Your task to perform on an android device: Open Yahoo.com Image 0: 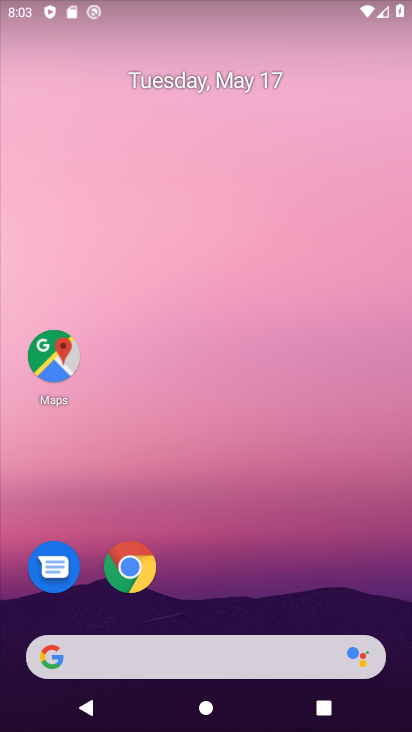
Step 0: drag from (360, 607) to (280, 63)
Your task to perform on an android device: Open Yahoo.com Image 1: 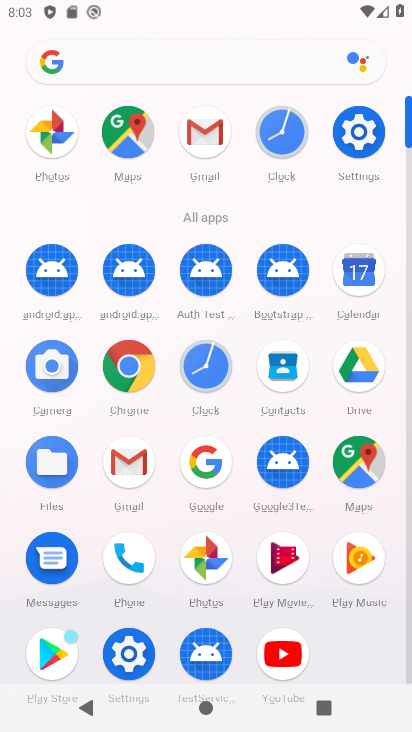
Step 1: click (217, 477)
Your task to perform on an android device: Open Yahoo.com Image 2: 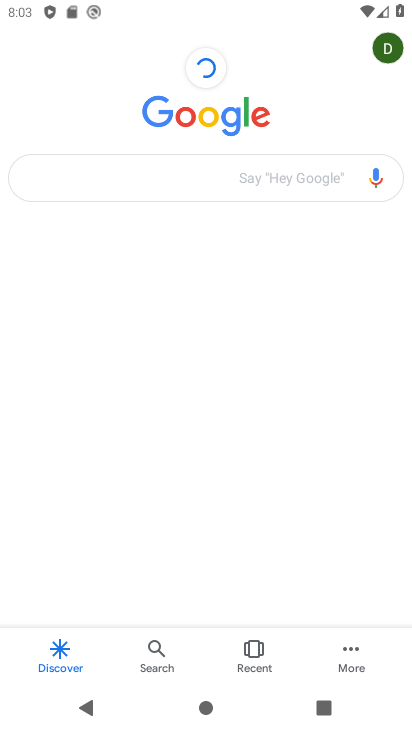
Step 2: click (177, 184)
Your task to perform on an android device: Open Yahoo.com Image 3: 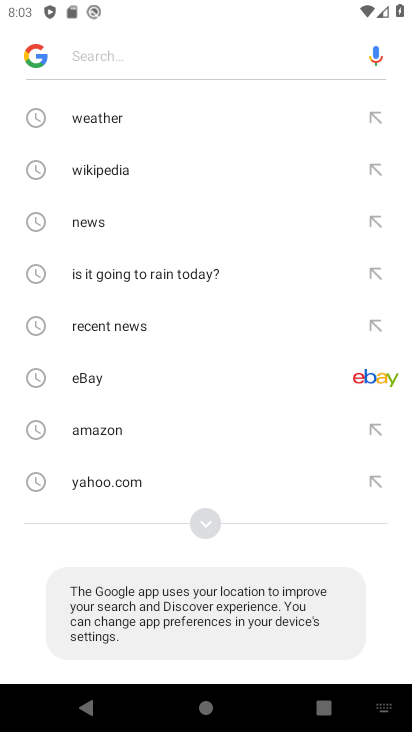
Step 3: click (100, 482)
Your task to perform on an android device: Open Yahoo.com Image 4: 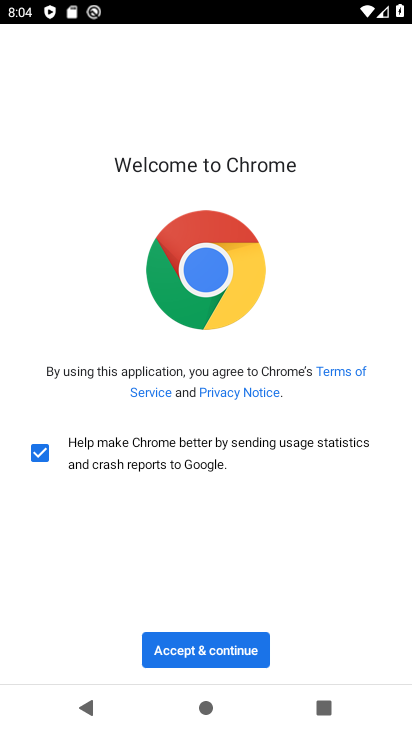
Step 4: click (227, 644)
Your task to perform on an android device: Open Yahoo.com Image 5: 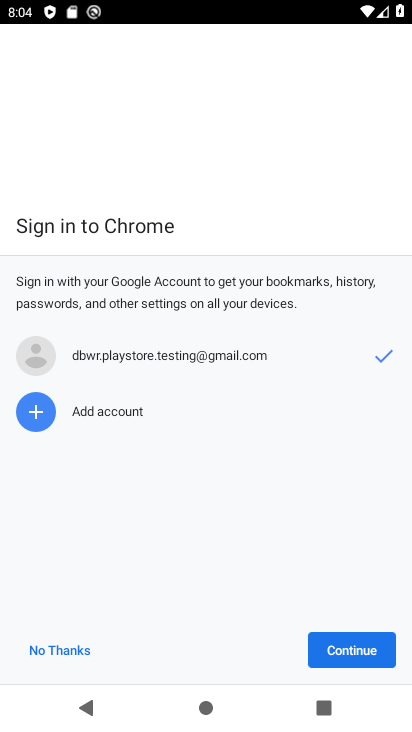
Step 5: click (336, 646)
Your task to perform on an android device: Open Yahoo.com Image 6: 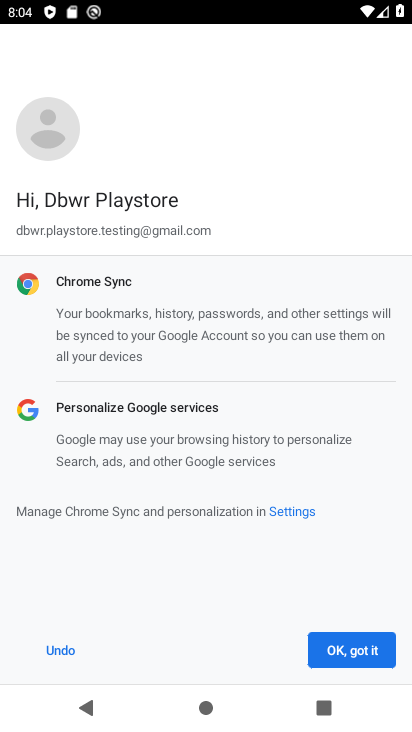
Step 6: click (336, 646)
Your task to perform on an android device: Open Yahoo.com Image 7: 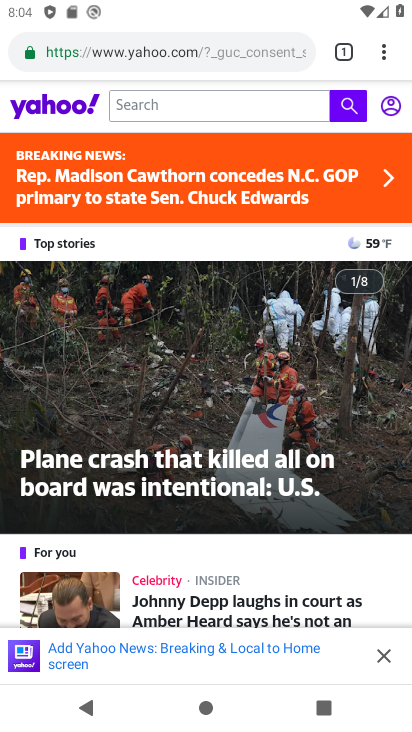
Step 7: task complete